Your task to perform on an android device: choose inbox layout in the gmail app Image 0: 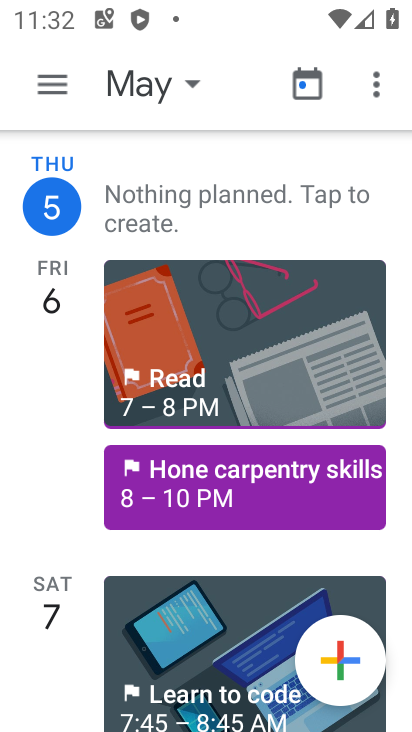
Step 0: press home button
Your task to perform on an android device: choose inbox layout in the gmail app Image 1: 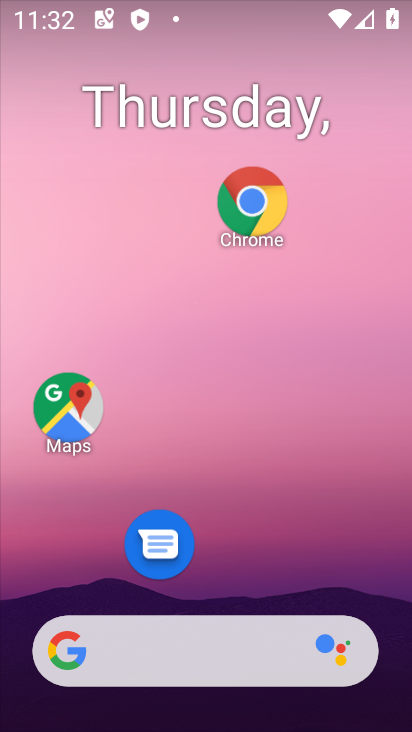
Step 1: drag from (203, 304) to (195, 8)
Your task to perform on an android device: choose inbox layout in the gmail app Image 2: 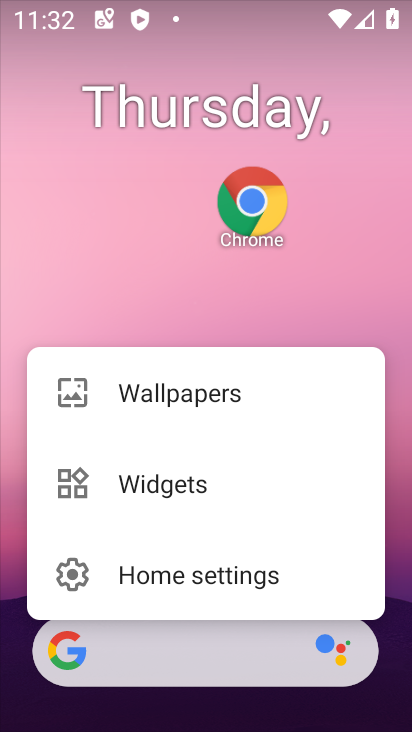
Step 2: click (280, 299)
Your task to perform on an android device: choose inbox layout in the gmail app Image 3: 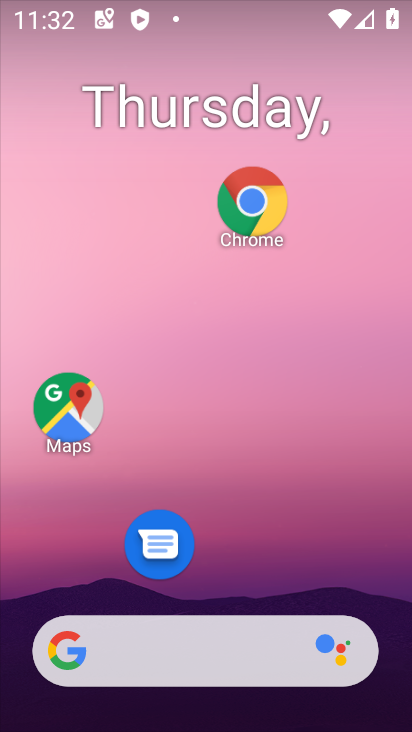
Step 3: drag from (224, 579) to (223, 66)
Your task to perform on an android device: choose inbox layout in the gmail app Image 4: 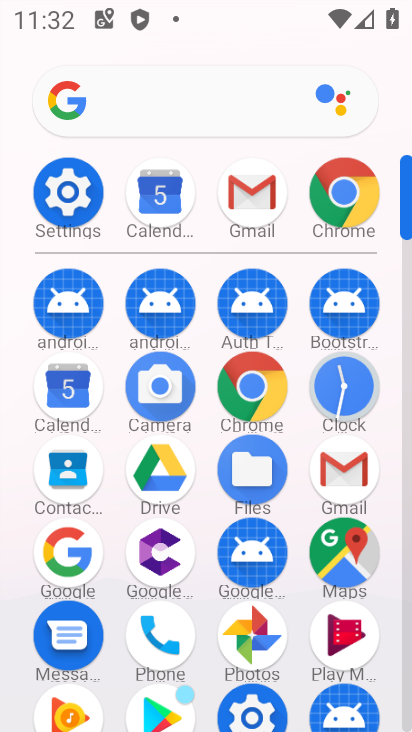
Step 4: click (346, 467)
Your task to perform on an android device: choose inbox layout in the gmail app Image 5: 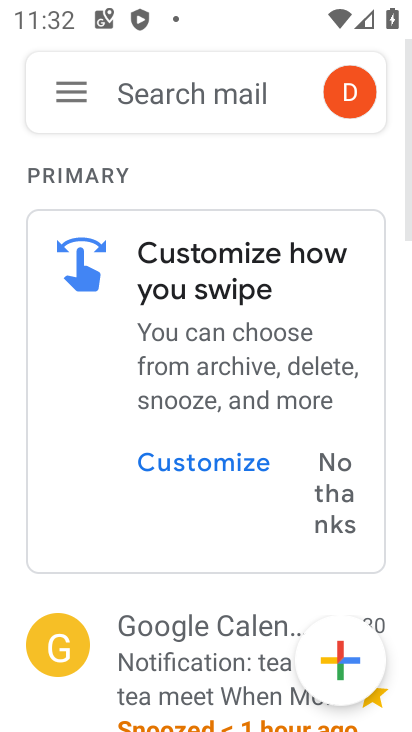
Step 5: click (71, 82)
Your task to perform on an android device: choose inbox layout in the gmail app Image 6: 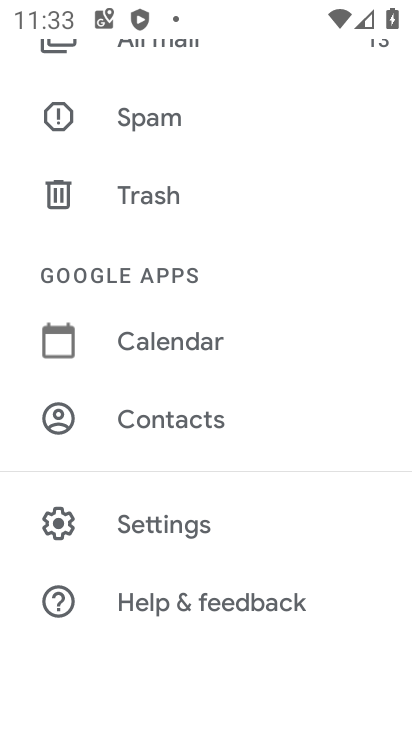
Step 6: click (137, 517)
Your task to perform on an android device: choose inbox layout in the gmail app Image 7: 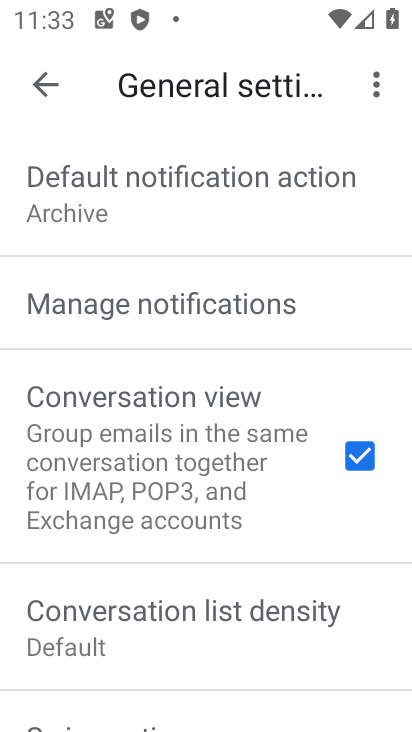
Step 7: click (45, 90)
Your task to perform on an android device: choose inbox layout in the gmail app Image 8: 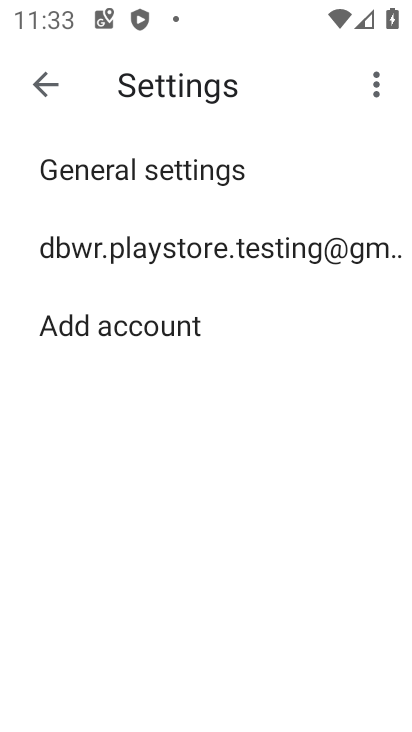
Step 8: click (132, 241)
Your task to perform on an android device: choose inbox layout in the gmail app Image 9: 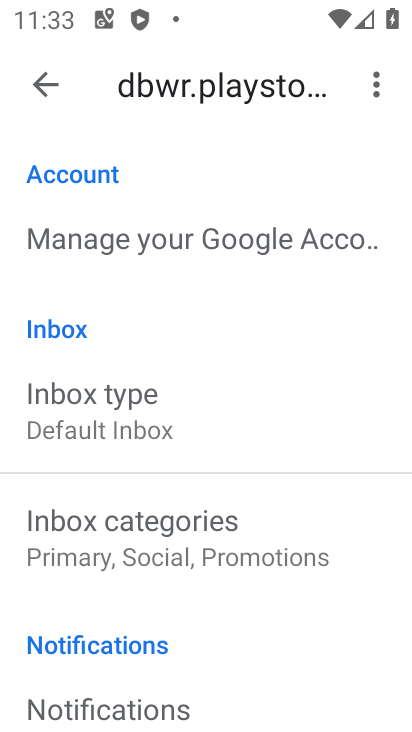
Step 9: click (187, 414)
Your task to perform on an android device: choose inbox layout in the gmail app Image 10: 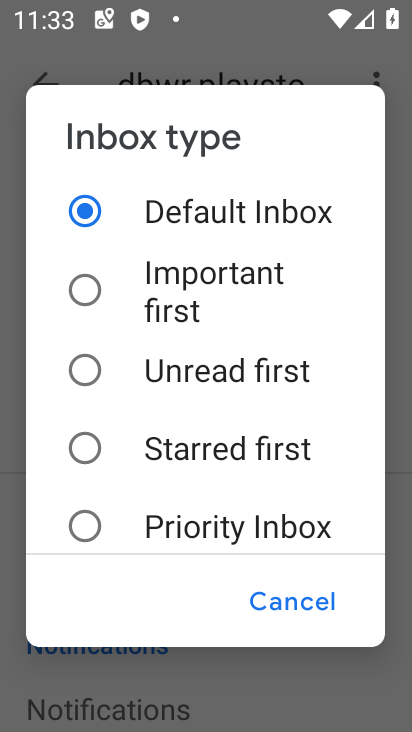
Step 10: click (74, 522)
Your task to perform on an android device: choose inbox layout in the gmail app Image 11: 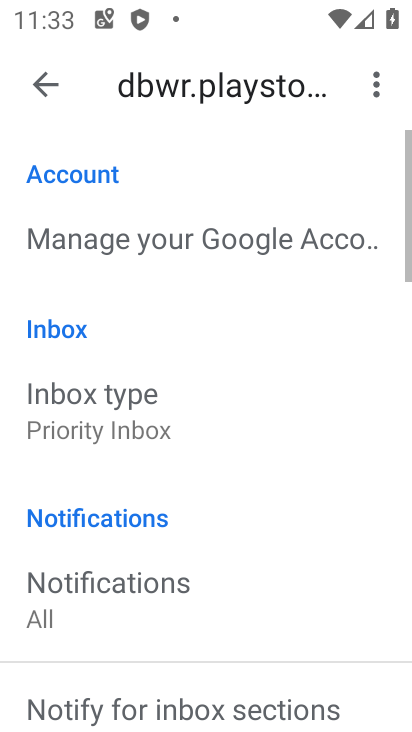
Step 11: task complete